Your task to perform on an android device: What's the weather? Image 0: 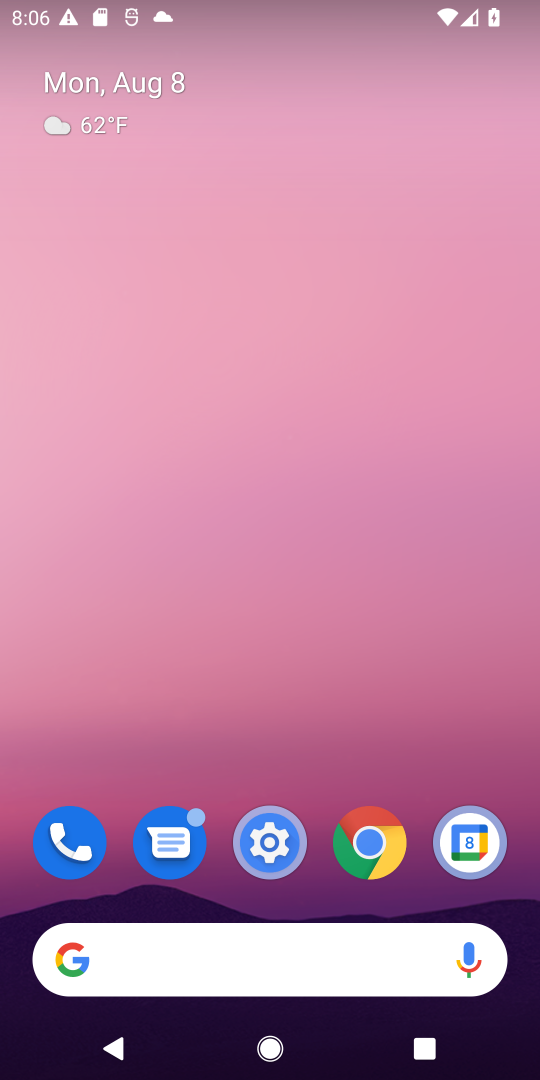
Step 0: click (283, 952)
Your task to perform on an android device: What's the weather? Image 1: 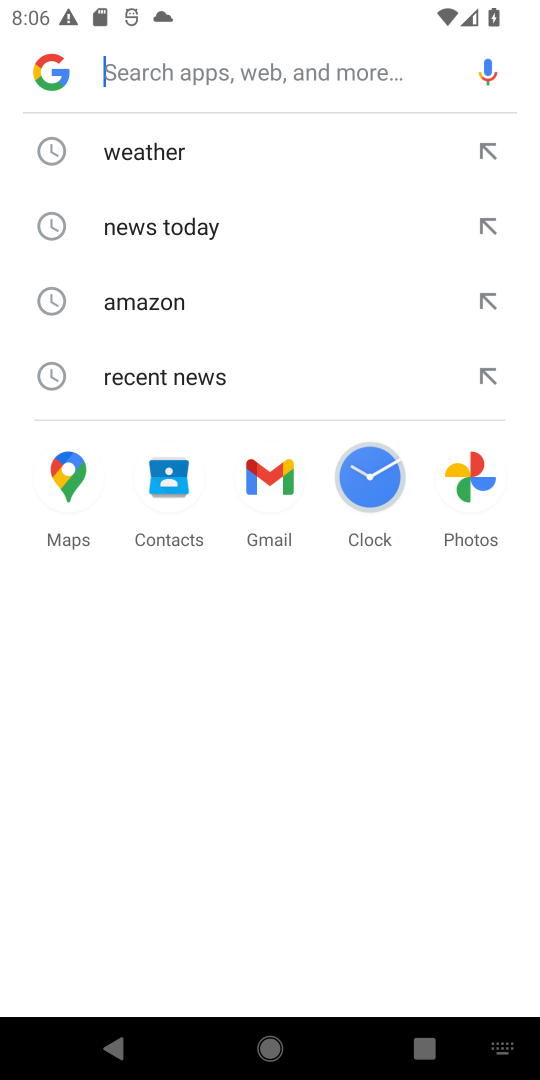
Step 1: click (158, 145)
Your task to perform on an android device: What's the weather? Image 2: 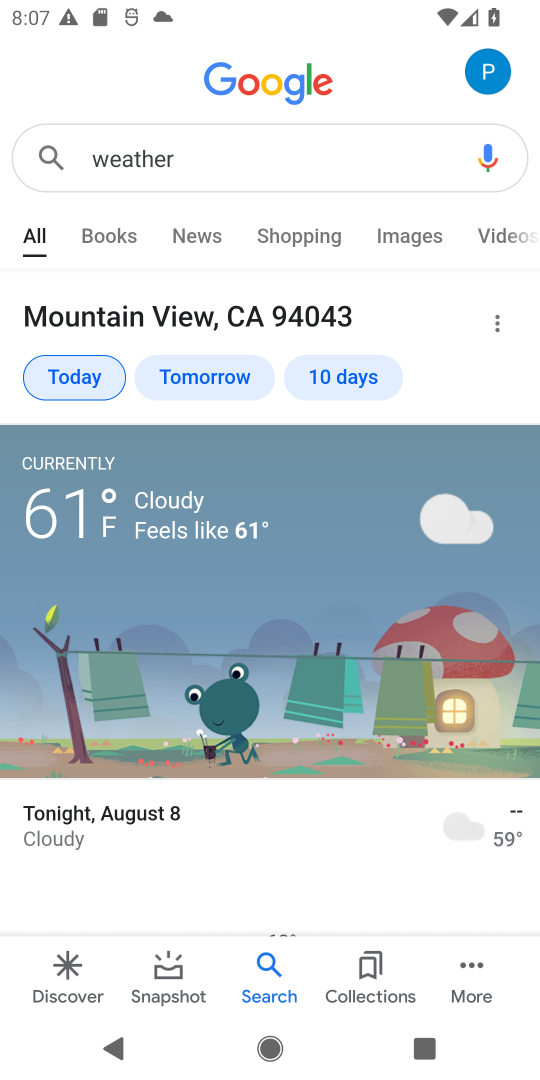
Step 2: click (86, 382)
Your task to perform on an android device: What's the weather? Image 3: 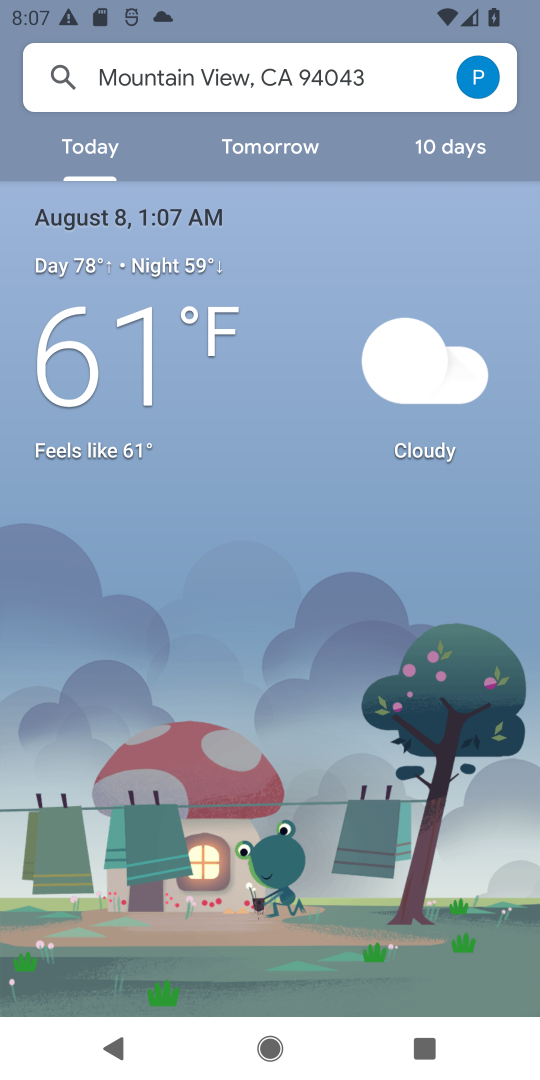
Step 3: task complete